Your task to perform on an android device: turn on bluetooth scan Image 0: 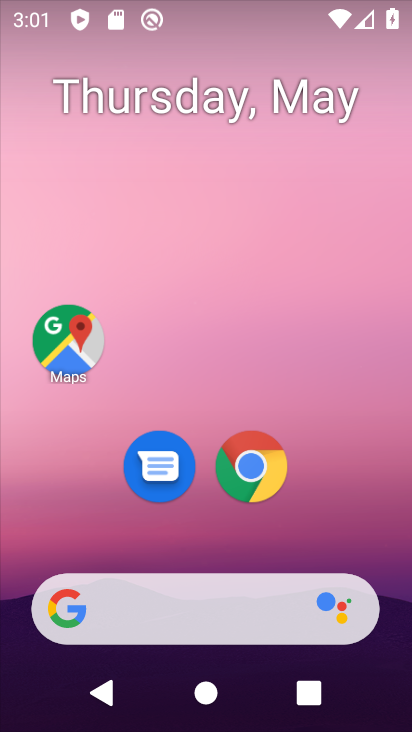
Step 0: drag from (380, 555) to (315, 307)
Your task to perform on an android device: turn on bluetooth scan Image 1: 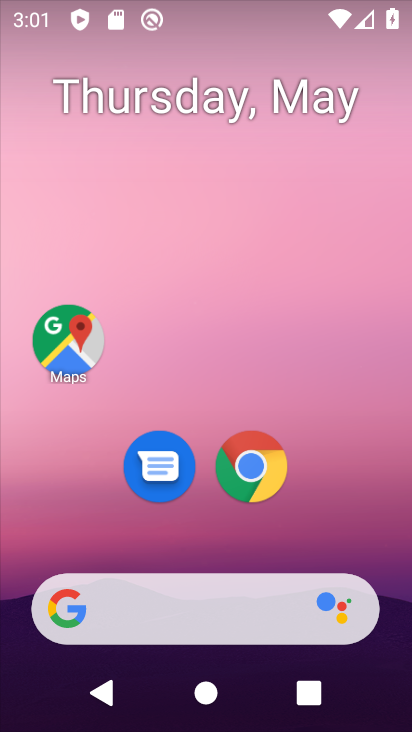
Step 1: drag from (357, 550) to (271, 142)
Your task to perform on an android device: turn on bluetooth scan Image 2: 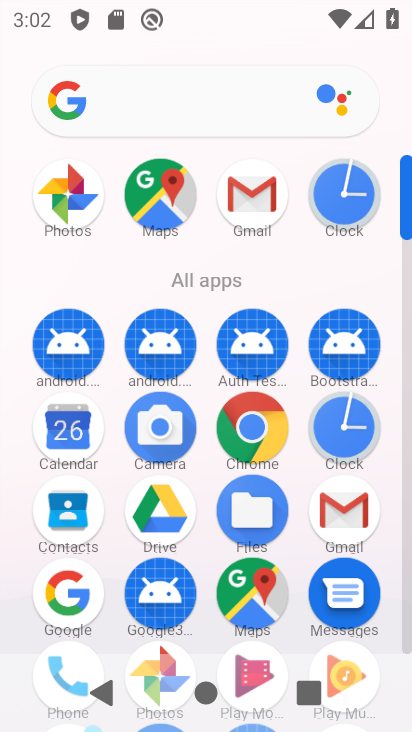
Step 2: click (410, 647)
Your task to perform on an android device: turn on bluetooth scan Image 3: 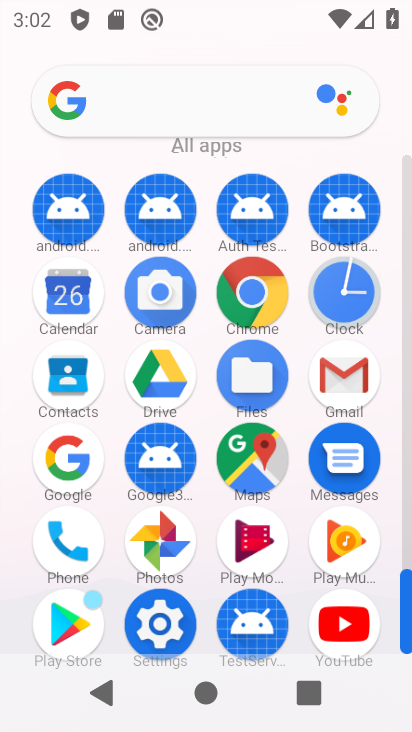
Step 3: click (174, 623)
Your task to perform on an android device: turn on bluetooth scan Image 4: 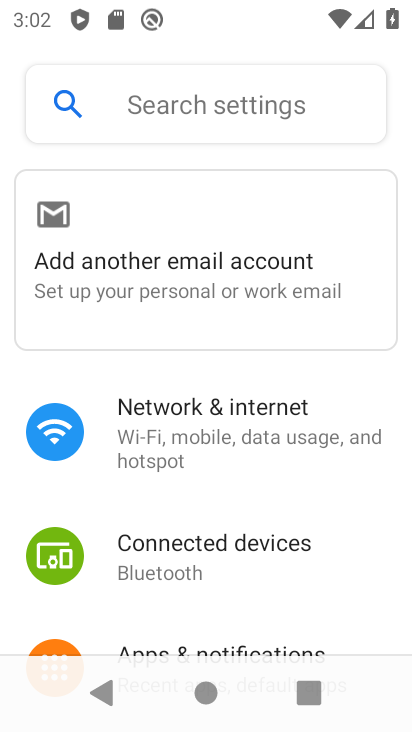
Step 4: drag from (209, 631) to (205, 292)
Your task to perform on an android device: turn on bluetooth scan Image 5: 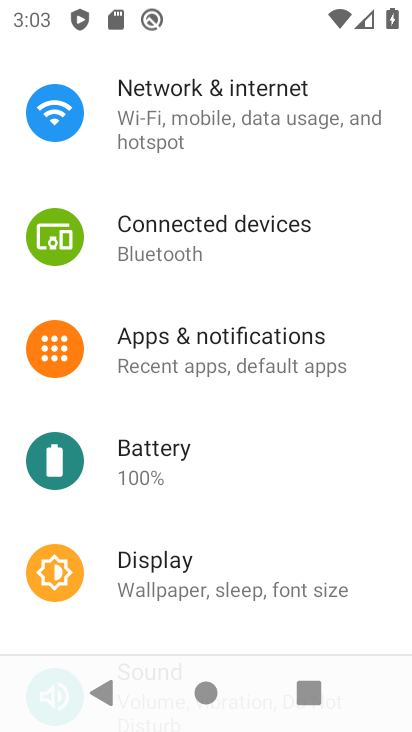
Step 5: drag from (222, 536) to (158, 259)
Your task to perform on an android device: turn on bluetooth scan Image 6: 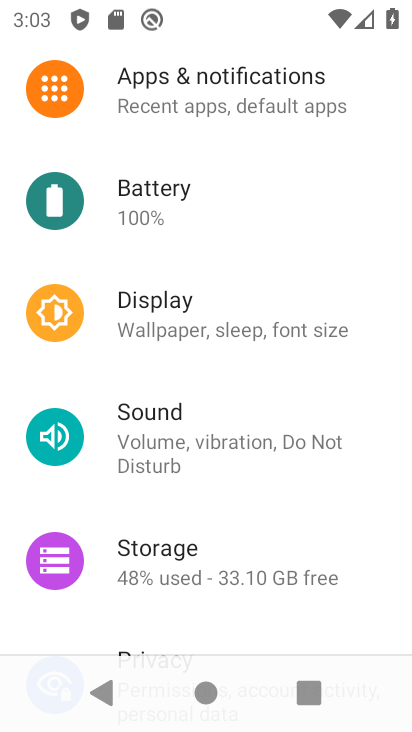
Step 6: drag from (225, 616) to (161, 227)
Your task to perform on an android device: turn on bluetooth scan Image 7: 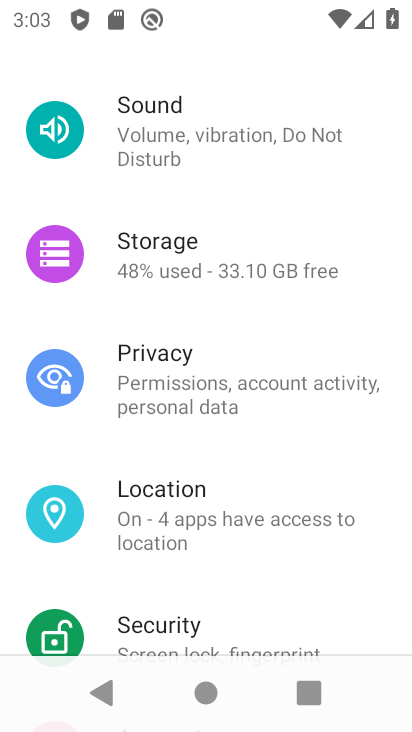
Step 7: click (175, 512)
Your task to perform on an android device: turn on bluetooth scan Image 8: 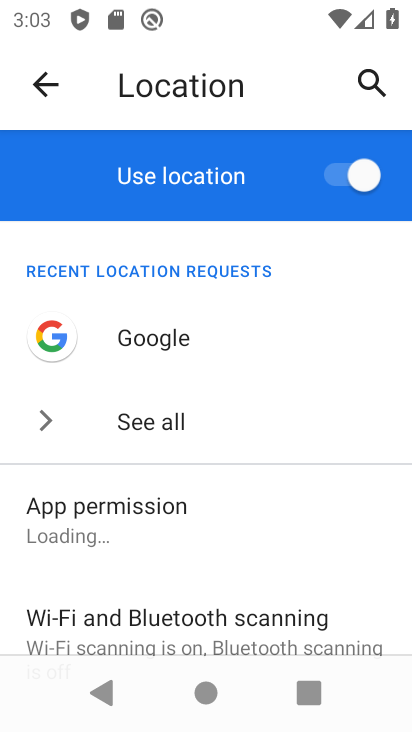
Step 8: drag from (243, 581) to (160, 248)
Your task to perform on an android device: turn on bluetooth scan Image 9: 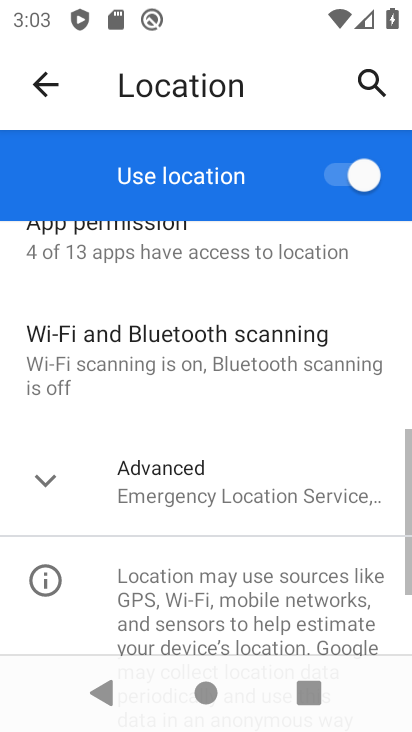
Step 9: click (172, 354)
Your task to perform on an android device: turn on bluetooth scan Image 10: 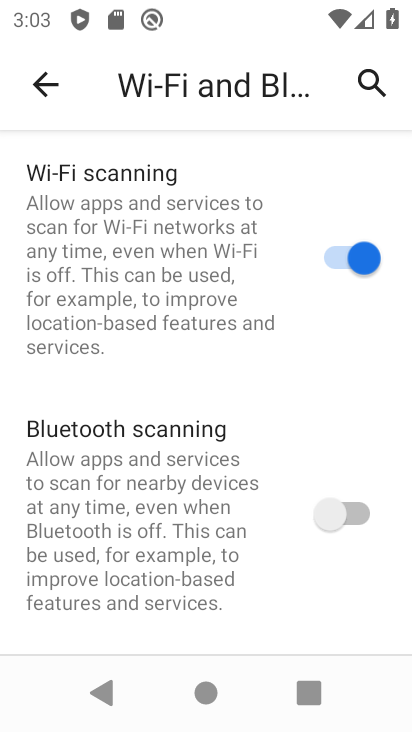
Step 10: click (354, 513)
Your task to perform on an android device: turn on bluetooth scan Image 11: 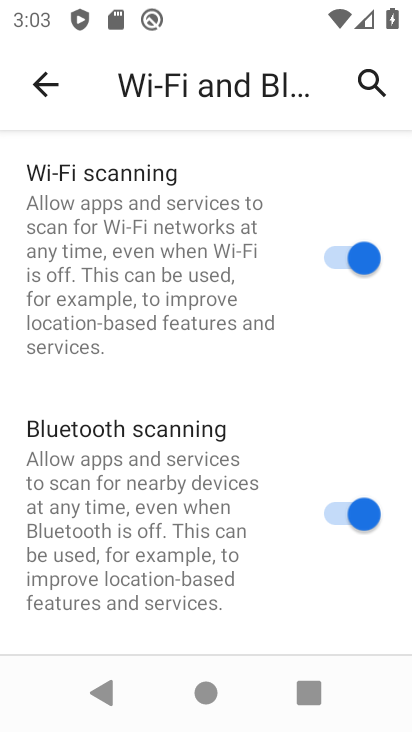
Step 11: task complete